Your task to perform on an android device: Search for Italian restaurants on Maps Image 0: 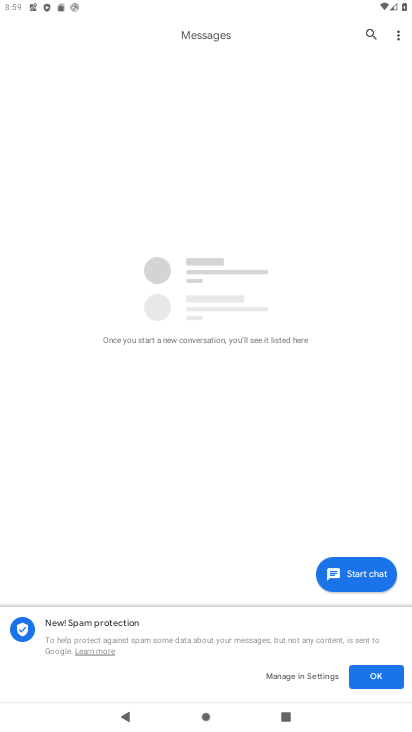
Step 0: press home button
Your task to perform on an android device: Search for Italian restaurants on Maps Image 1: 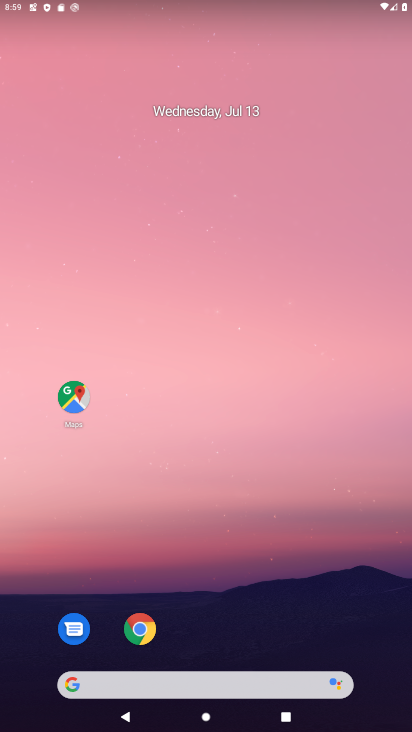
Step 1: drag from (310, 605) to (300, 66)
Your task to perform on an android device: Search for Italian restaurants on Maps Image 2: 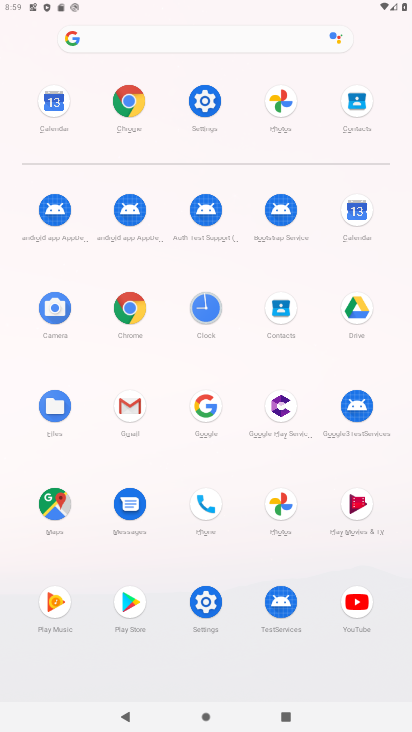
Step 2: click (52, 500)
Your task to perform on an android device: Search for Italian restaurants on Maps Image 3: 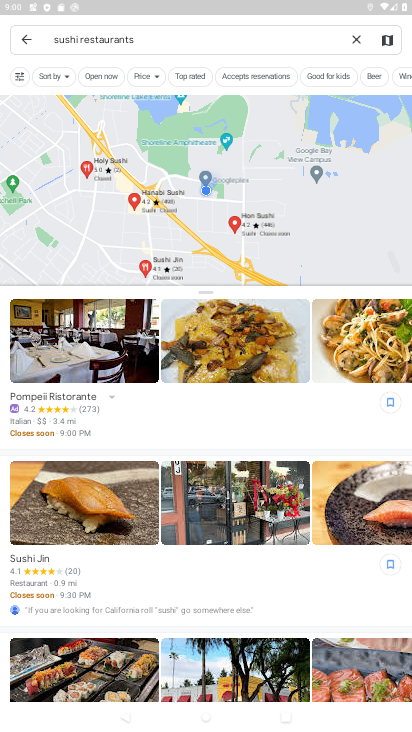
Step 3: click (176, 35)
Your task to perform on an android device: Search for Italian restaurants on Maps Image 4: 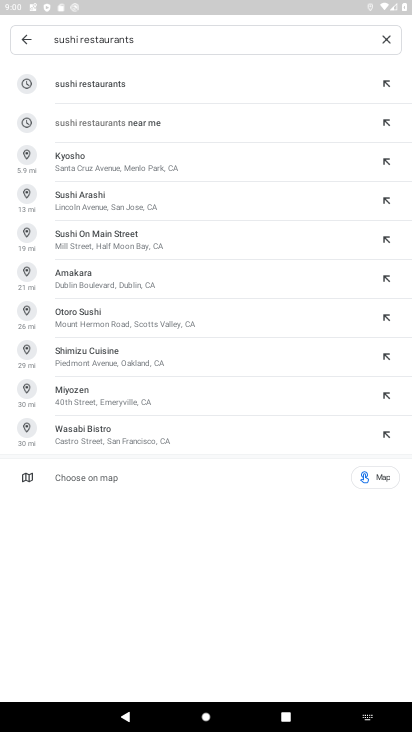
Step 4: click (385, 35)
Your task to perform on an android device: Search for Italian restaurants on Maps Image 5: 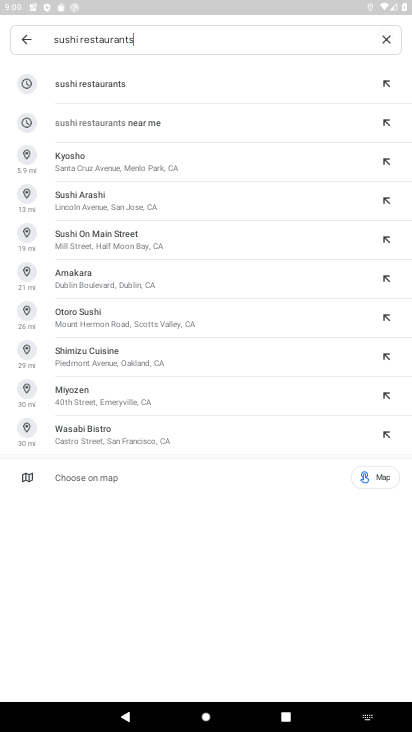
Step 5: click (385, 35)
Your task to perform on an android device: Search for Italian restaurants on Maps Image 6: 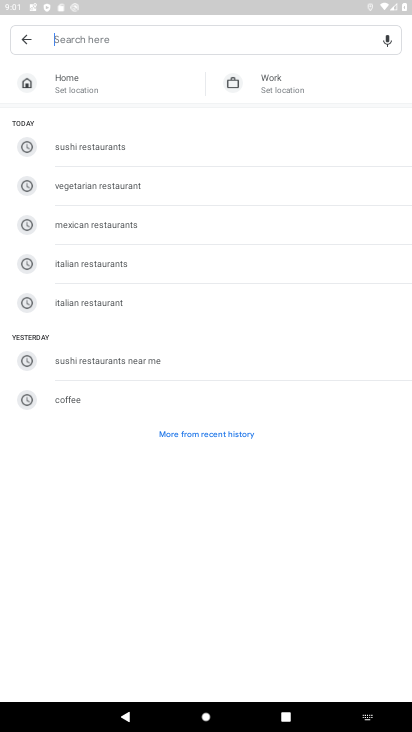
Step 6: type "italian restaurants"
Your task to perform on an android device: Search for Italian restaurants on Maps Image 7: 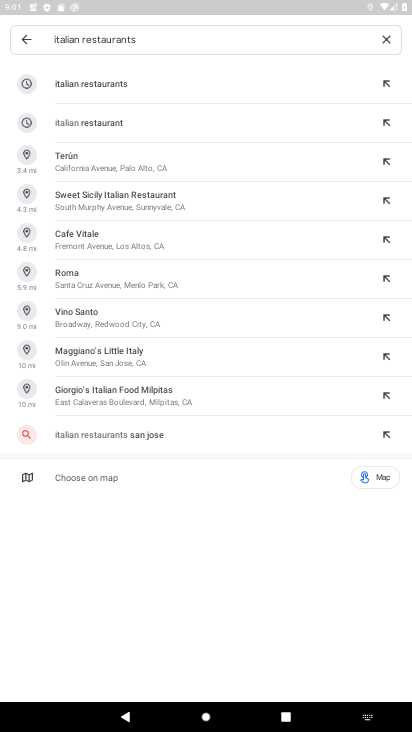
Step 7: click (122, 92)
Your task to perform on an android device: Search for Italian restaurants on Maps Image 8: 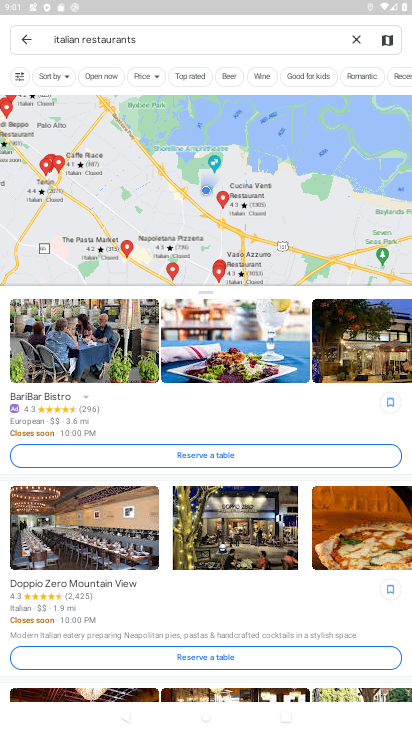
Step 8: task complete